Your task to perform on an android device: stop showing notifications on the lock screen Image 0: 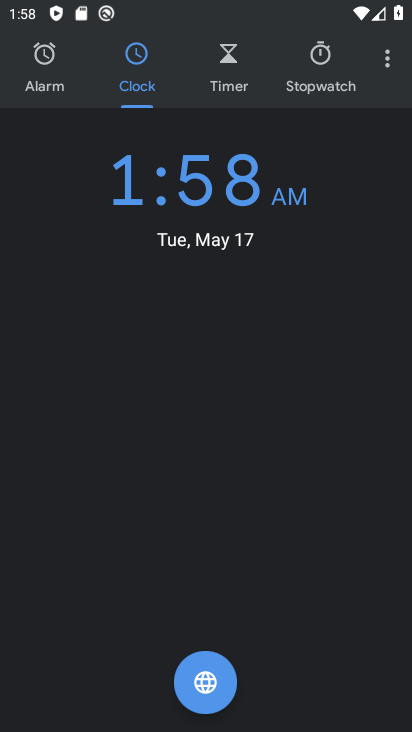
Step 0: press back button
Your task to perform on an android device: stop showing notifications on the lock screen Image 1: 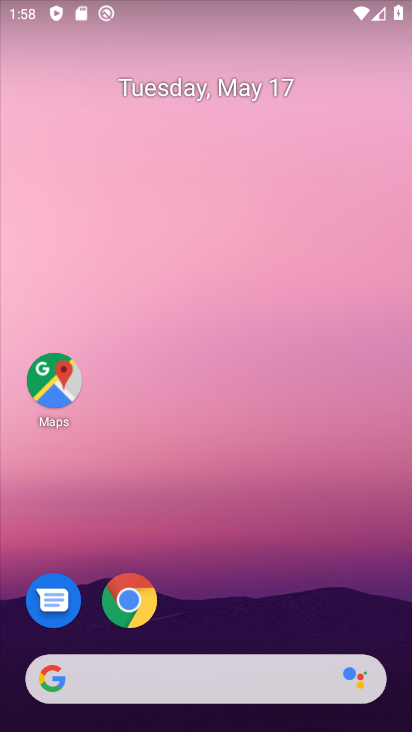
Step 1: drag from (244, 621) to (148, 90)
Your task to perform on an android device: stop showing notifications on the lock screen Image 2: 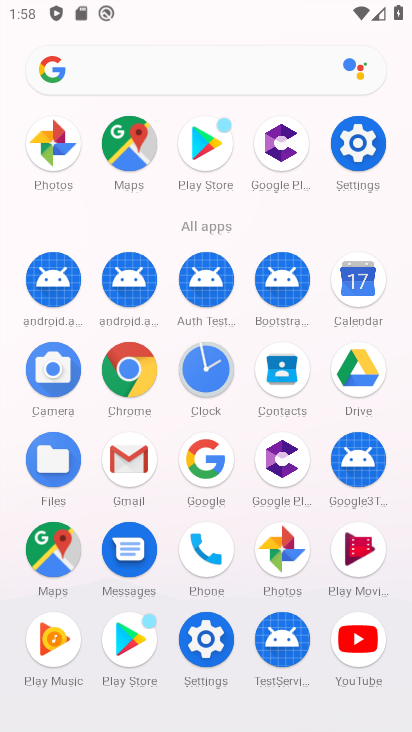
Step 2: click (347, 139)
Your task to perform on an android device: stop showing notifications on the lock screen Image 3: 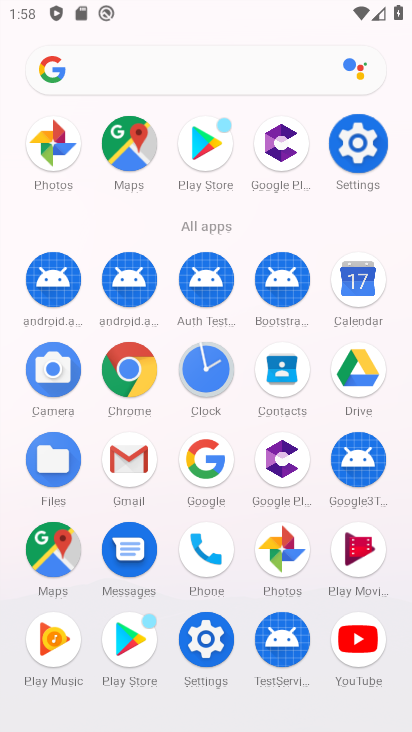
Step 3: click (347, 139)
Your task to perform on an android device: stop showing notifications on the lock screen Image 4: 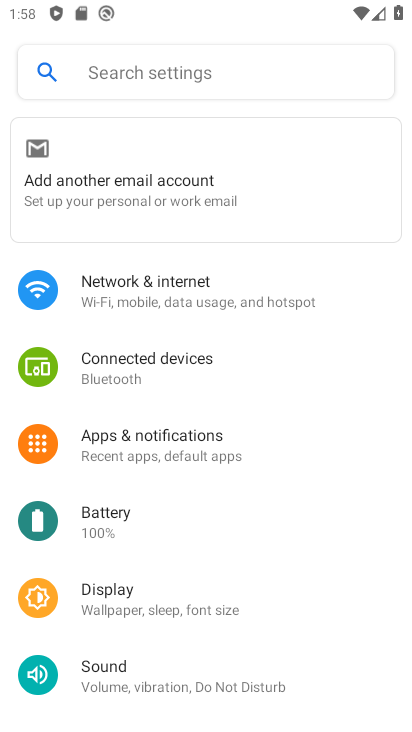
Step 4: click (168, 442)
Your task to perform on an android device: stop showing notifications on the lock screen Image 5: 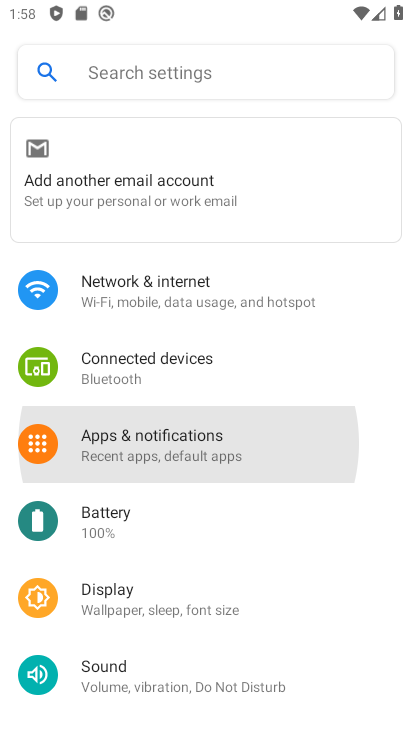
Step 5: click (168, 442)
Your task to perform on an android device: stop showing notifications on the lock screen Image 6: 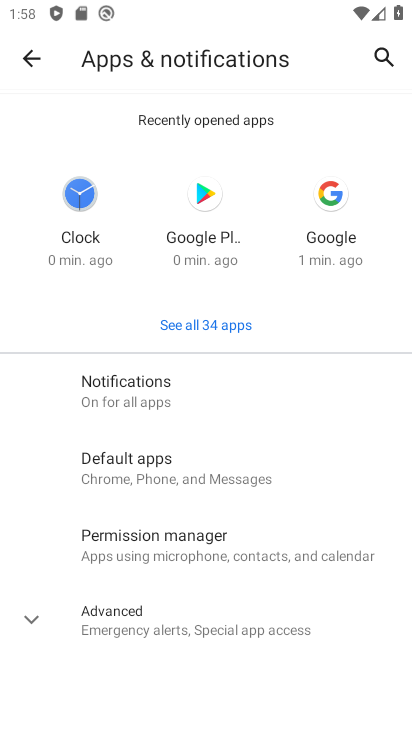
Step 6: click (130, 398)
Your task to perform on an android device: stop showing notifications on the lock screen Image 7: 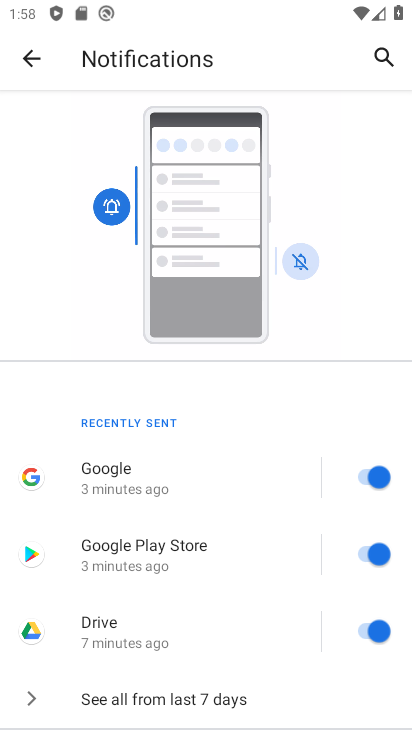
Step 7: drag from (145, 624) to (165, 281)
Your task to perform on an android device: stop showing notifications on the lock screen Image 8: 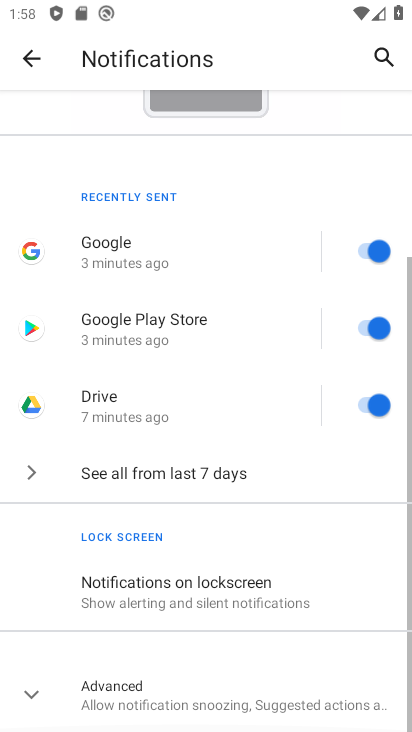
Step 8: drag from (179, 570) to (131, 327)
Your task to perform on an android device: stop showing notifications on the lock screen Image 9: 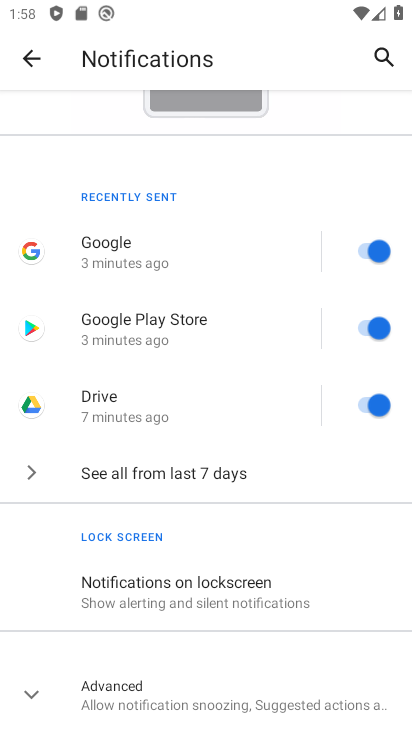
Step 9: click (154, 588)
Your task to perform on an android device: stop showing notifications on the lock screen Image 10: 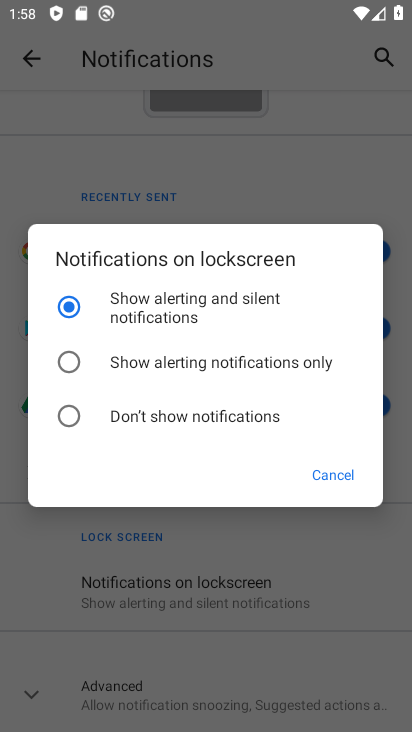
Step 10: click (69, 352)
Your task to perform on an android device: stop showing notifications on the lock screen Image 11: 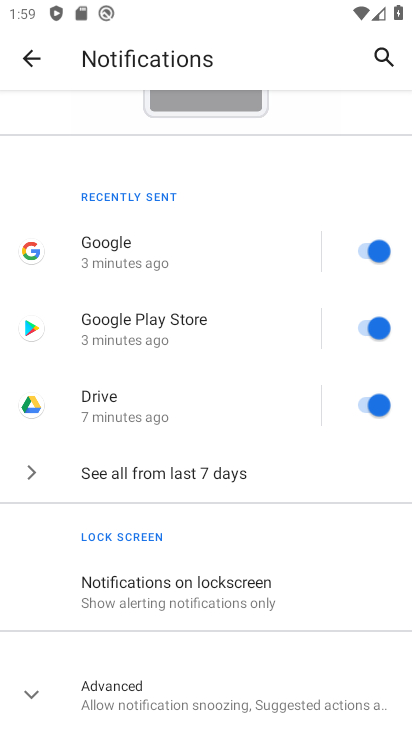
Step 11: task complete